Your task to perform on an android device: turn on priority inbox in the gmail app Image 0: 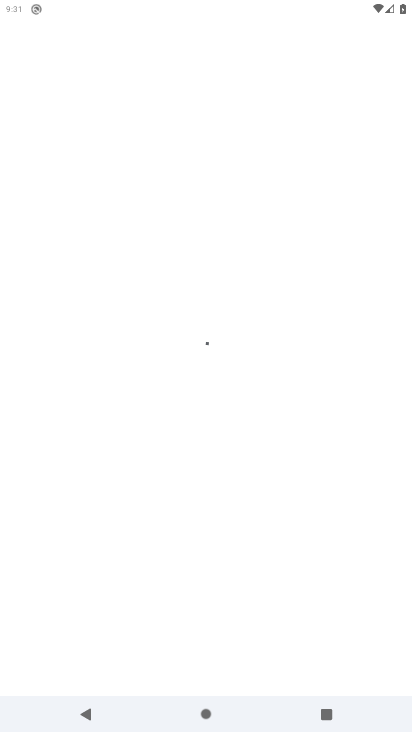
Step 0: click (126, 607)
Your task to perform on an android device: turn on priority inbox in the gmail app Image 1: 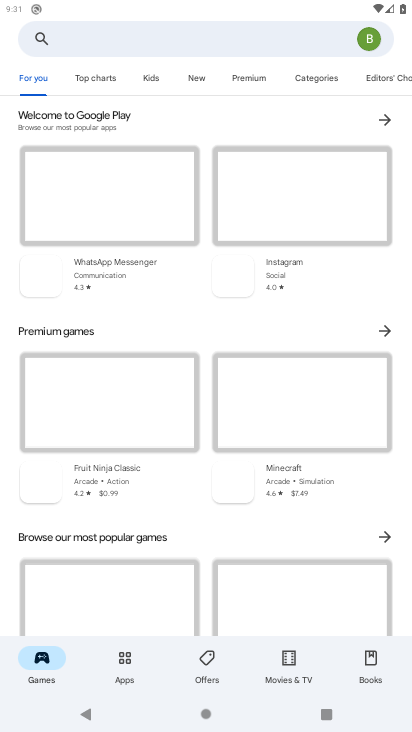
Step 1: press home button
Your task to perform on an android device: turn on priority inbox in the gmail app Image 2: 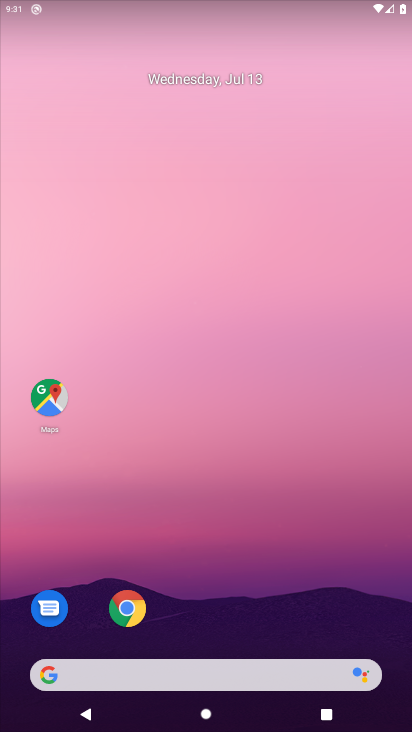
Step 2: drag from (39, 701) to (271, 186)
Your task to perform on an android device: turn on priority inbox in the gmail app Image 3: 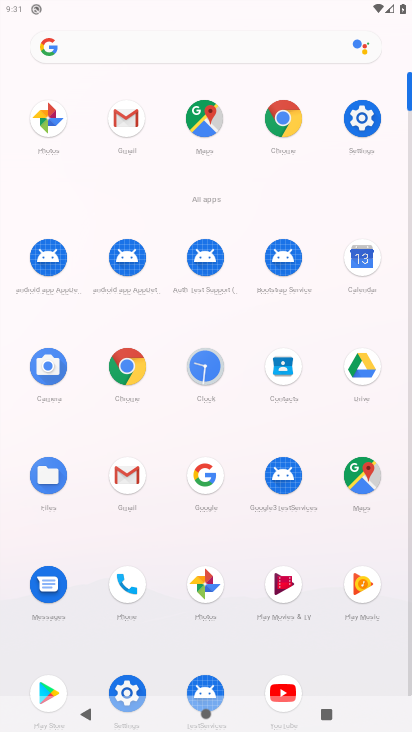
Step 3: click (137, 489)
Your task to perform on an android device: turn on priority inbox in the gmail app Image 4: 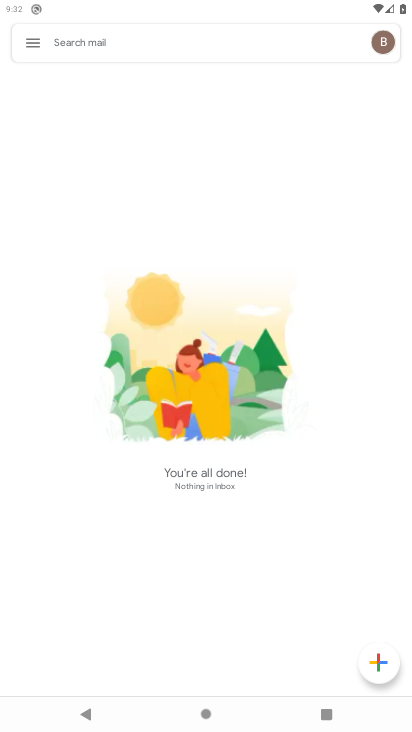
Step 4: click (22, 45)
Your task to perform on an android device: turn on priority inbox in the gmail app Image 5: 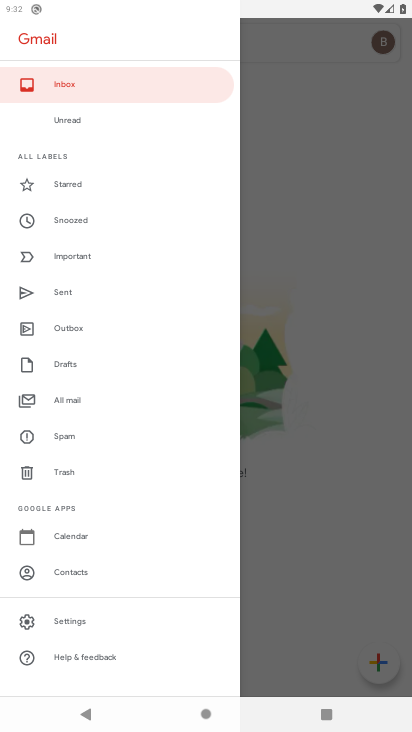
Step 5: click (75, 631)
Your task to perform on an android device: turn on priority inbox in the gmail app Image 6: 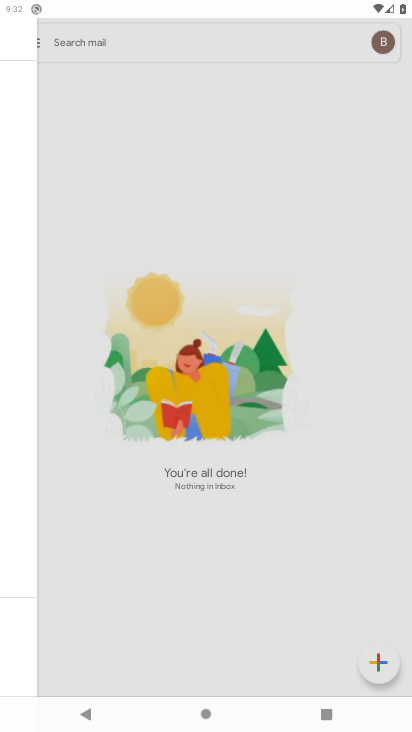
Step 6: click (75, 616)
Your task to perform on an android device: turn on priority inbox in the gmail app Image 7: 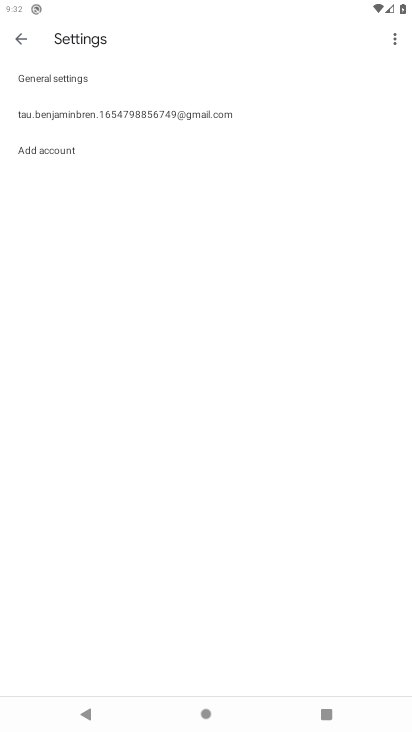
Step 7: click (63, 118)
Your task to perform on an android device: turn on priority inbox in the gmail app Image 8: 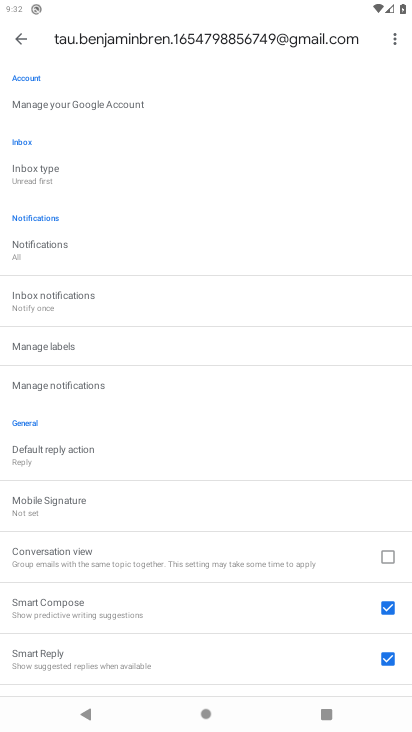
Step 8: click (48, 176)
Your task to perform on an android device: turn on priority inbox in the gmail app Image 9: 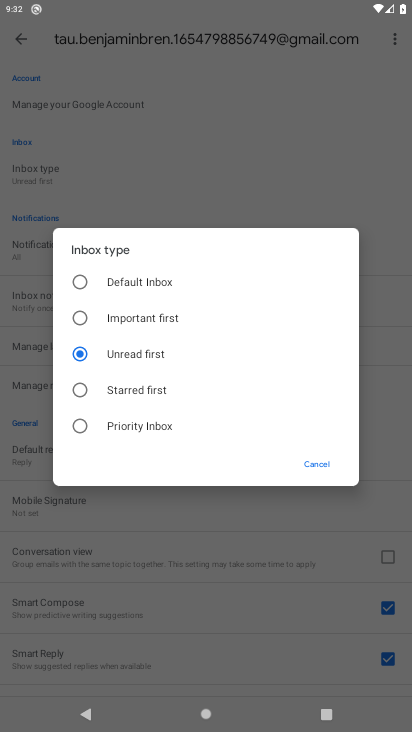
Step 9: click (93, 429)
Your task to perform on an android device: turn on priority inbox in the gmail app Image 10: 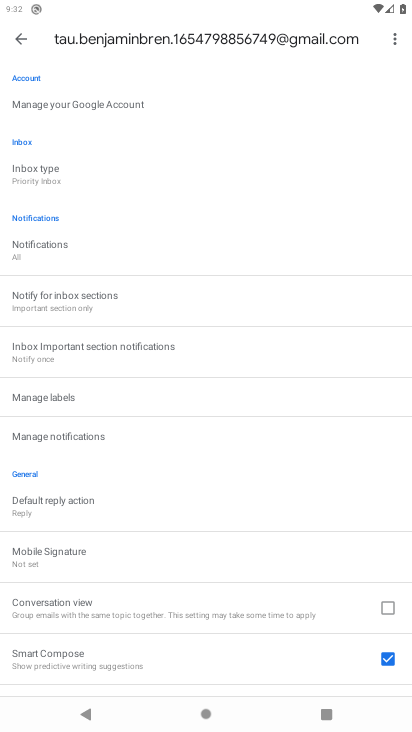
Step 10: task complete